Your task to perform on an android device: Checkthe settings for the Amazon Prime Music app Image 0: 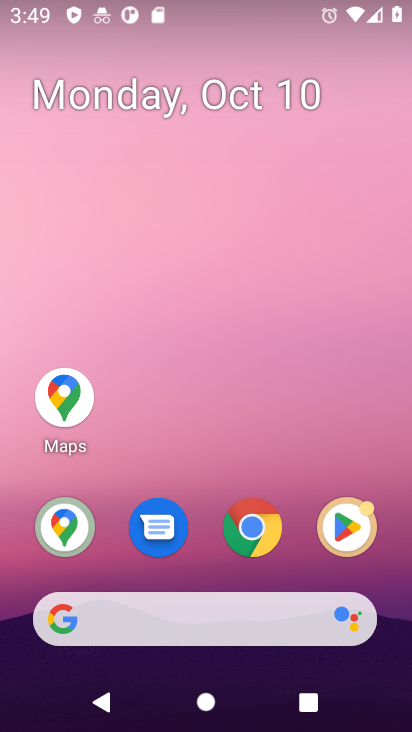
Step 0: click (346, 526)
Your task to perform on an android device: Checkthe settings for the Amazon Prime Music app Image 1: 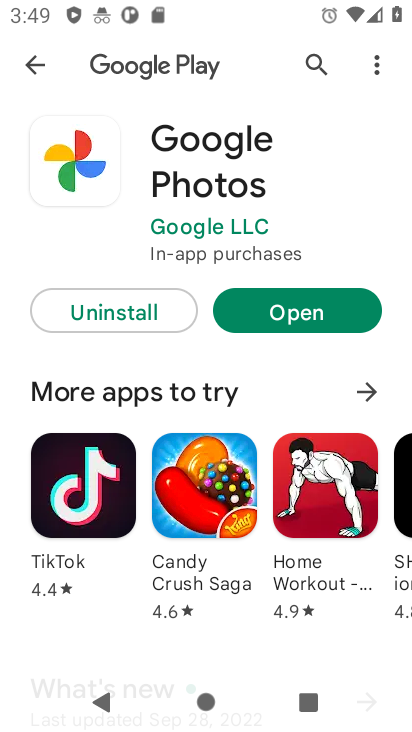
Step 1: press back button
Your task to perform on an android device: Checkthe settings for the Amazon Prime Music app Image 2: 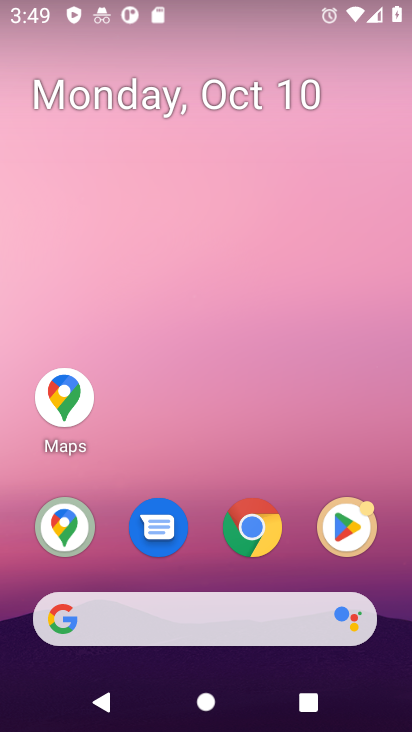
Step 2: click (350, 530)
Your task to perform on an android device: Checkthe settings for the Amazon Prime Music app Image 3: 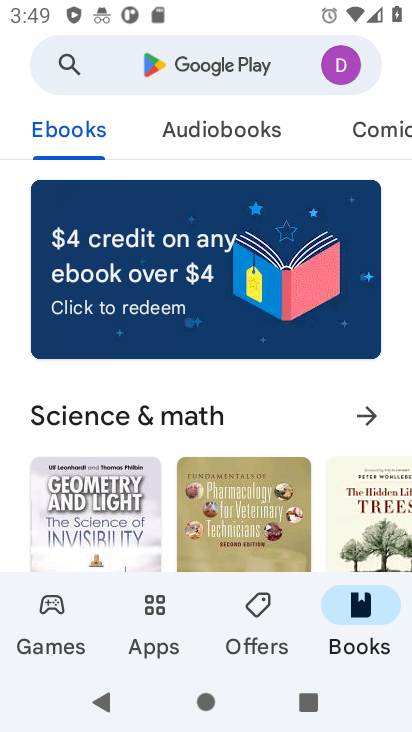
Step 3: click (168, 60)
Your task to perform on an android device: Checkthe settings for the Amazon Prime Music app Image 4: 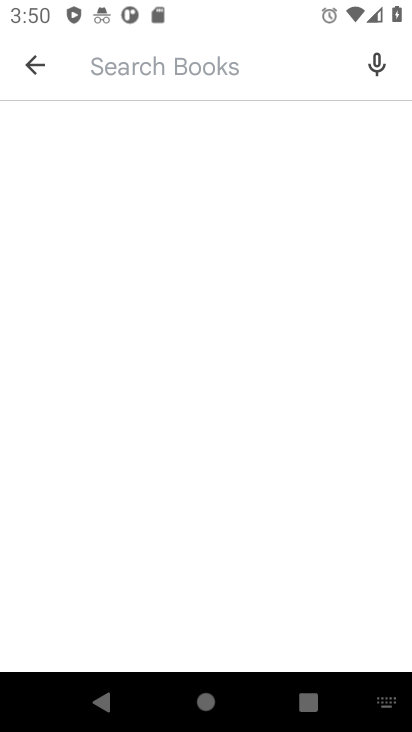
Step 4: type "Amazon Prime Music app"
Your task to perform on an android device: Checkthe settings for the Amazon Prime Music app Image 5: 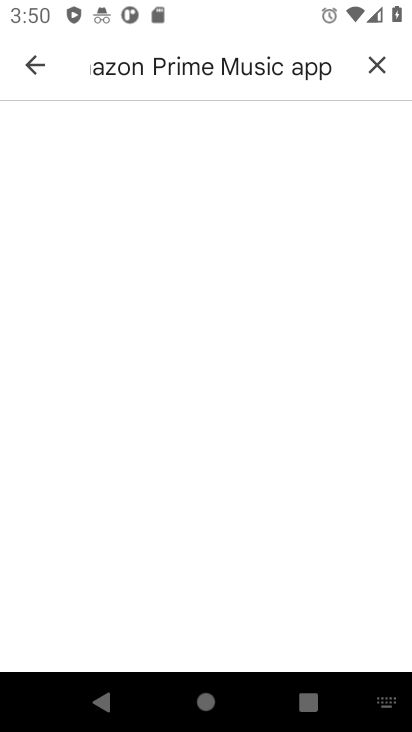
Step 5: task complete